Your task to perform on an android device: Open Reddit.com Image 0: 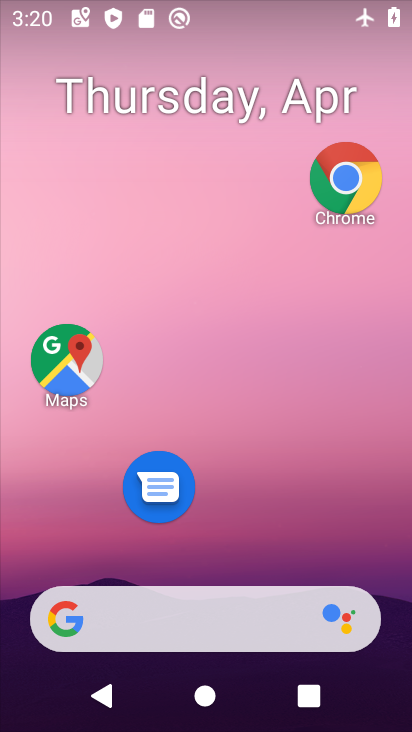
Step 0: drag from (281, 624) to (291, 444)
Your task to perform on an android device: Open Reddit.com Image 1: 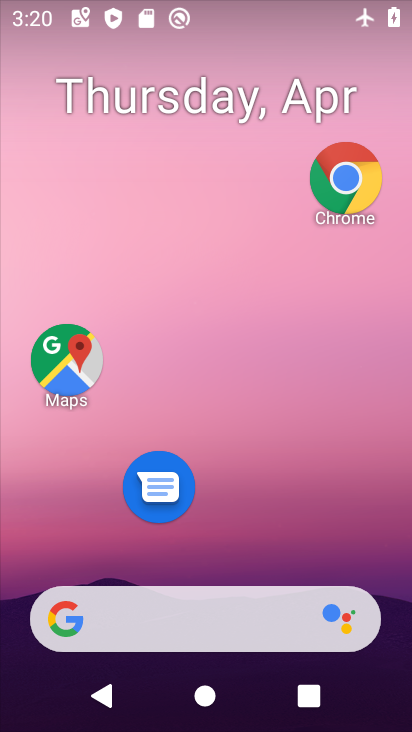
Step 1: click (331, 209)
Your task to perform on an android device: Open Reddit.com Image 2: 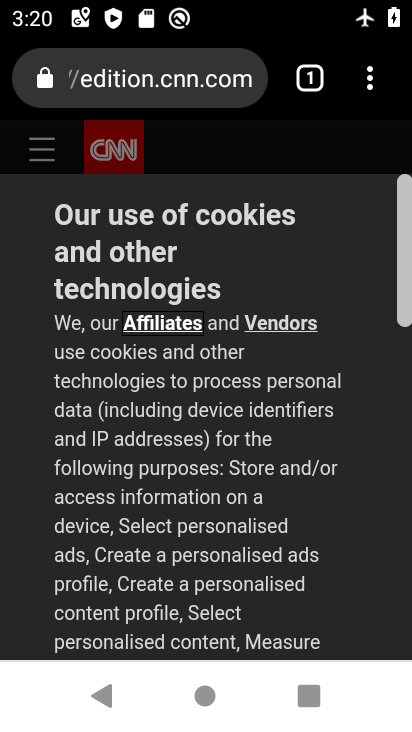
Step 2: click (225, 108)
Your task to perform on an android device: Open Reddit.com Image 3: 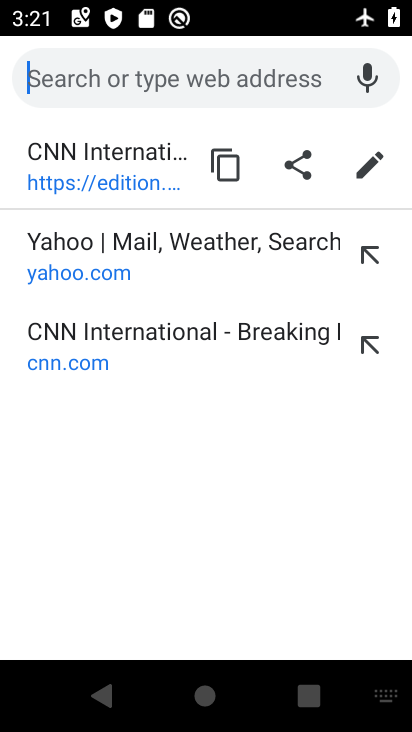
Step 3: type "reddit.com"
Your task to perform on an android device: Open Reddit.com Image 4: 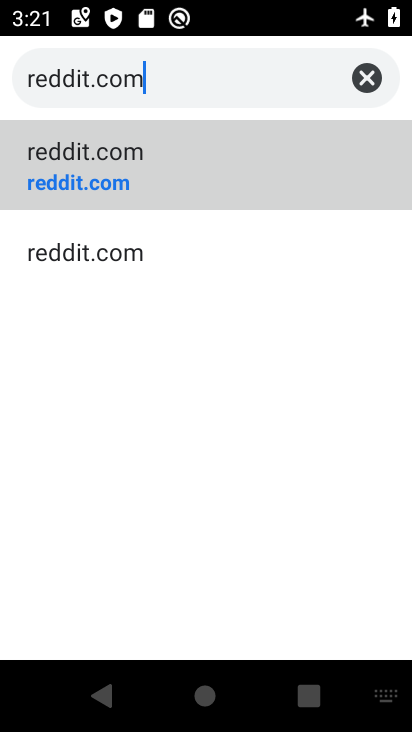
Step 4: click (205, 179)
Your task to perform on an android device: Open Reddit.com Image 5: 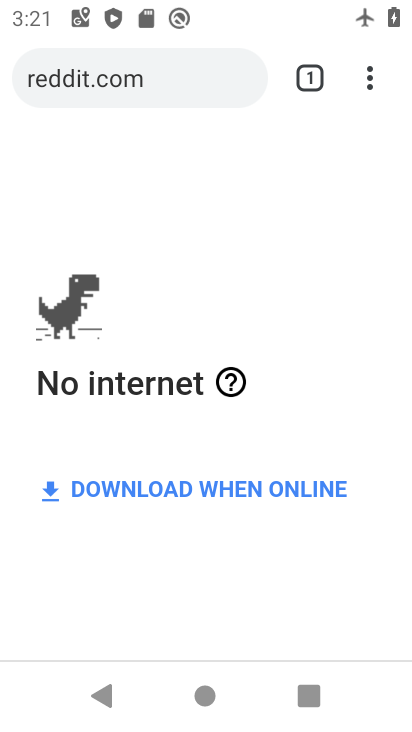
Step 5: task complete